Your task to perform on an android device: Go to Android settings Image 0: 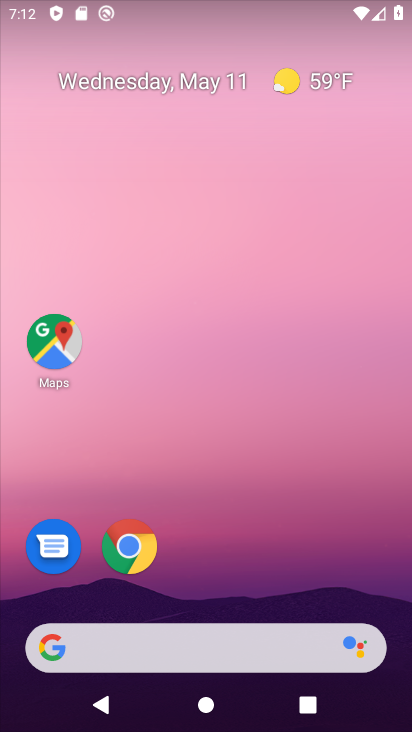
Step 0: drag from (305, 539) to (278, 141)
Your task to perform on an android device: Go to Android settings Image 1: 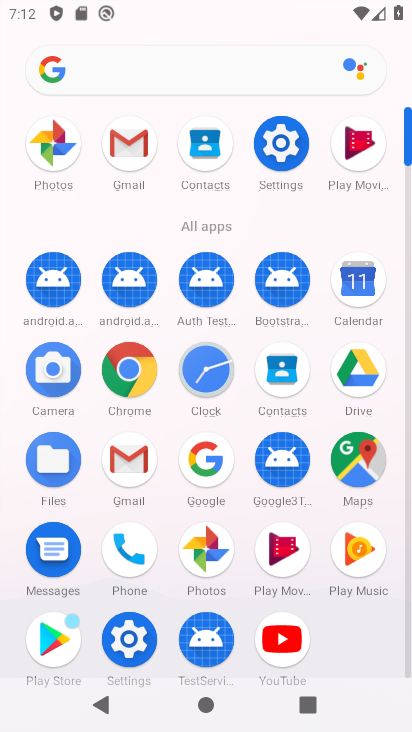
Step 1: drag from (207, 24) to (277, 463)
Your task to perform on an android device: Go to Android settings Image 2: 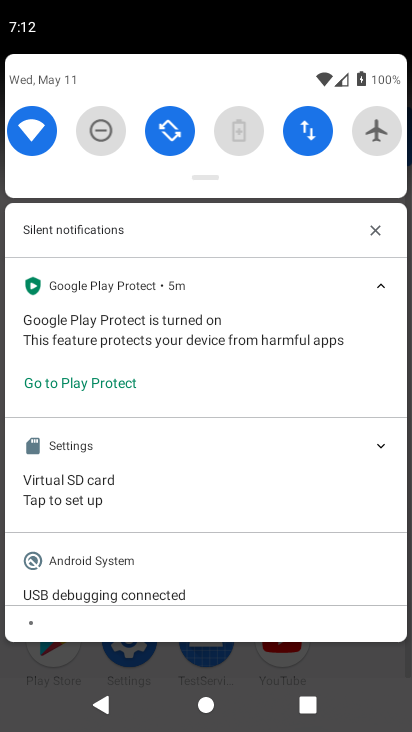
Step 2: drag from (248, 672) to (272, 6)
Your task to perform on an android device: Go to Android settings Image 3: 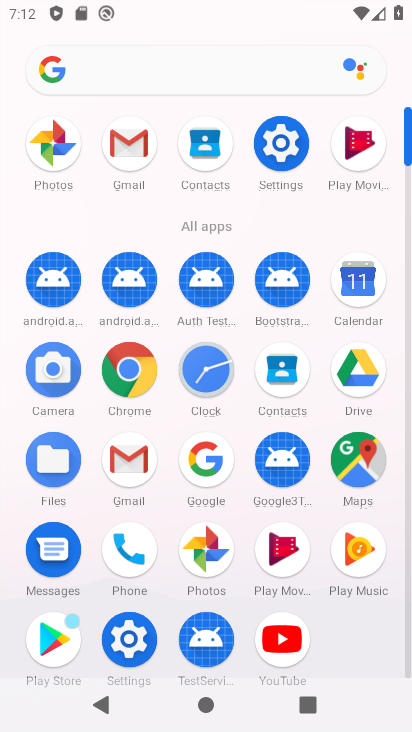
Step 3: click (279, 163)
Your task to perform on an android device: Go to Android settings Image 4: 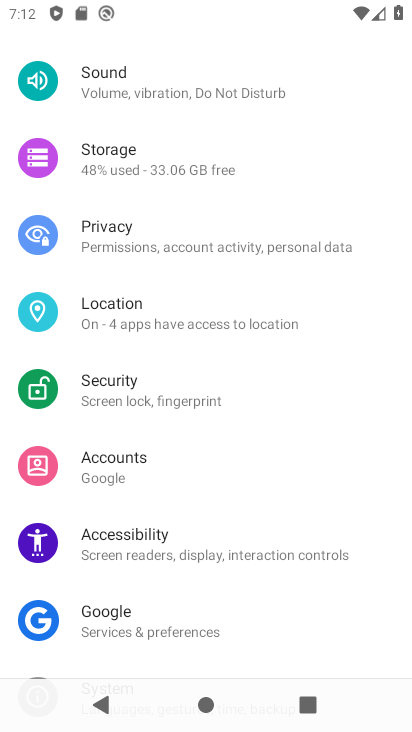
Step 4: task complete